Your task to perform on an android device: set default search engine in the chrome app Image 0: 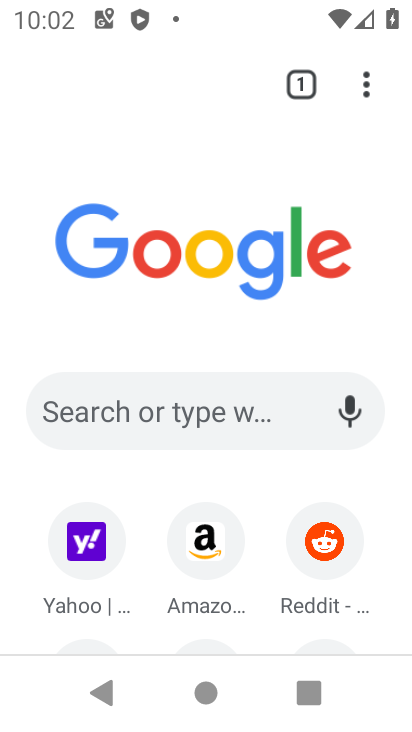
Step 0: press home button
Your task to perform on an android device: set default search engine in the chrome app Image 1: 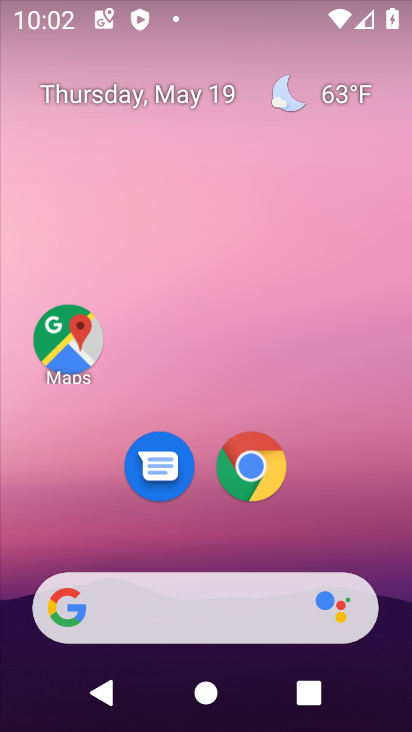
Step 1: drag from (403, 639) to (277, 41)
Your task to perform on an android device: set default search engine in the chrome app Image 2: 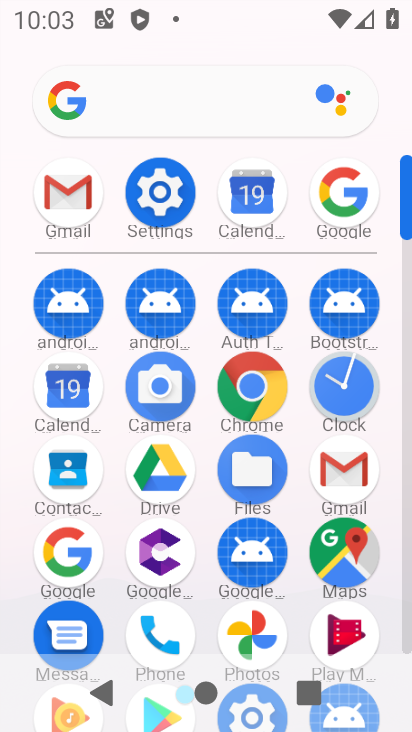
Step 2: click (251, 391)
Your task to perform on an android device: set default search engine in the chrome app Image 3: 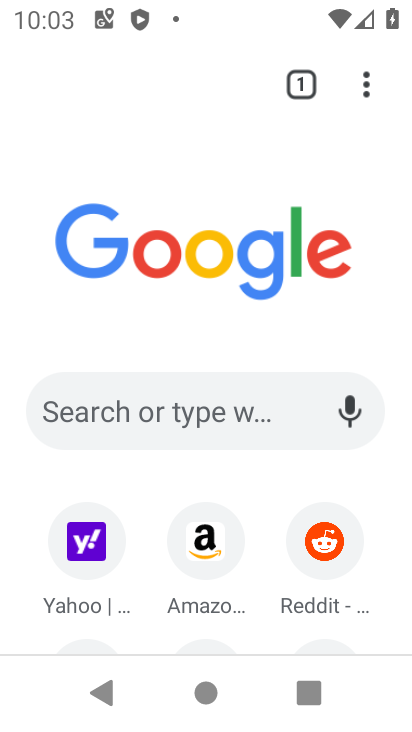
Step 3: click (363, 82)
Your task to perform on an android device: set default search engine in the chrome app Image 4: 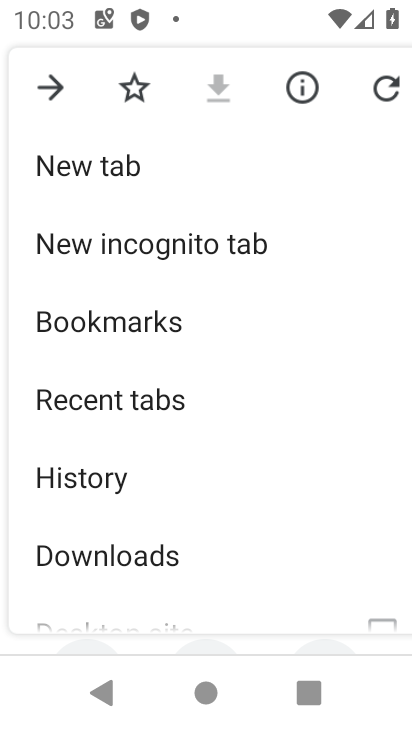
Step 4: drag from (138, 554) to (198, 152)
Your task to perform on an android device: set default search engine in the chrome app Image 5: 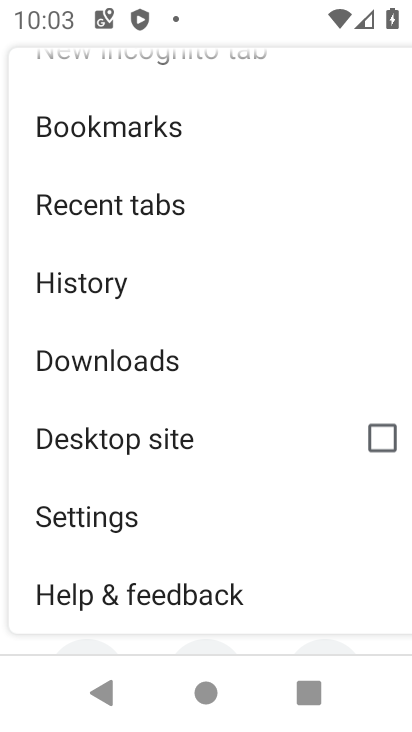
Step 5: click (95, 531)
Your task to perform on an android device: set default search engine in the chrome app Image 6: 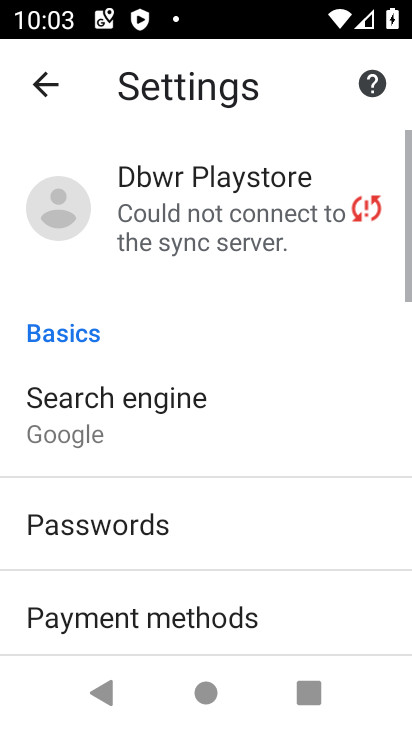
Step 6: click (115, 410)
Your task to perform on an android device: set default search engine in the chrome app Image 7: 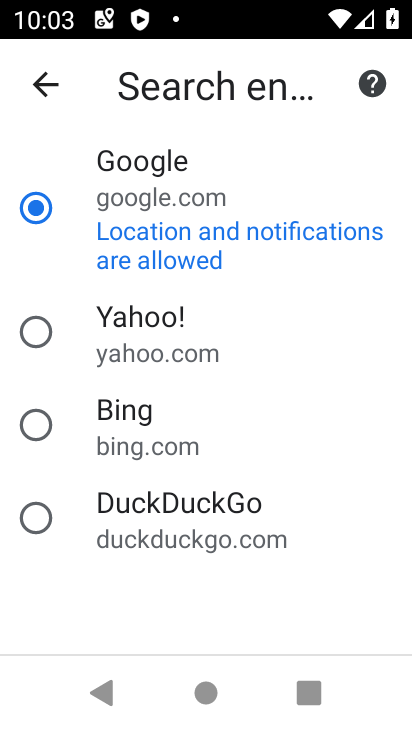
Step 7: click (106, 340)
Your task to perform on an android device: set default search engine in the chrome app Image 8: 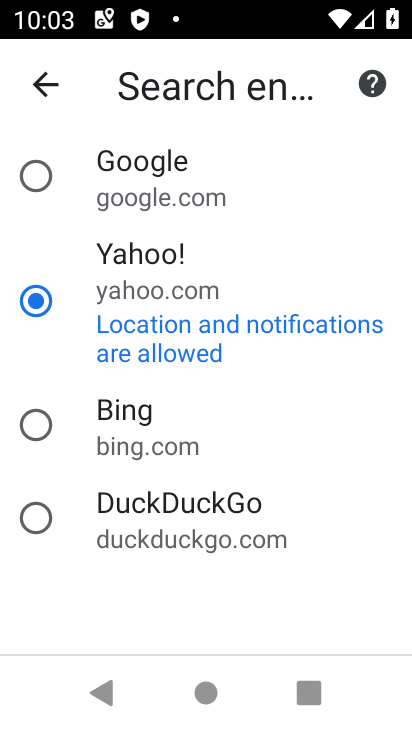
Step 8: task complete